Your task to perform on an android device: open the mobile data screen to see how much data has been used Image 0: 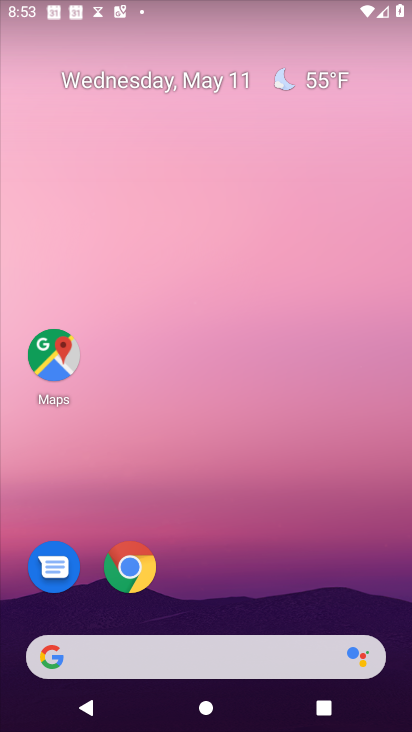
Step 0: drag from (227, 606) to (303, 10)
Your task to perform on an android device: open the mobile data screen to see how much data has been used Image 1: 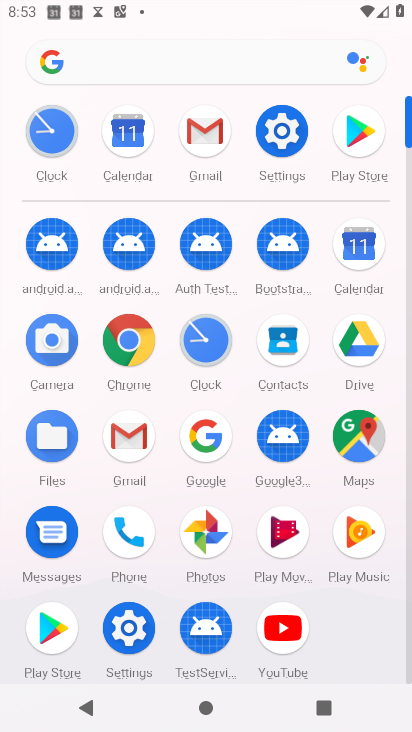
Step 1: click (302, 137)
Your task to perform on an android device: open the mobile data screen to see how much data has been used Image 2: 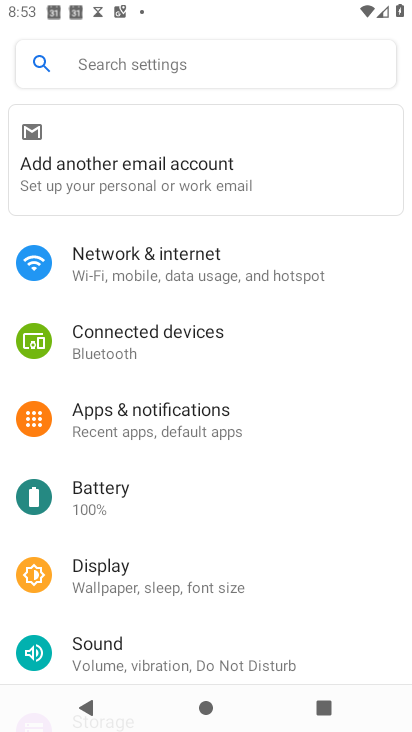
Step 2: click (222, 280)
Your task to perform on an android device: open the mobile data screen to see how much data has been used Image 3: 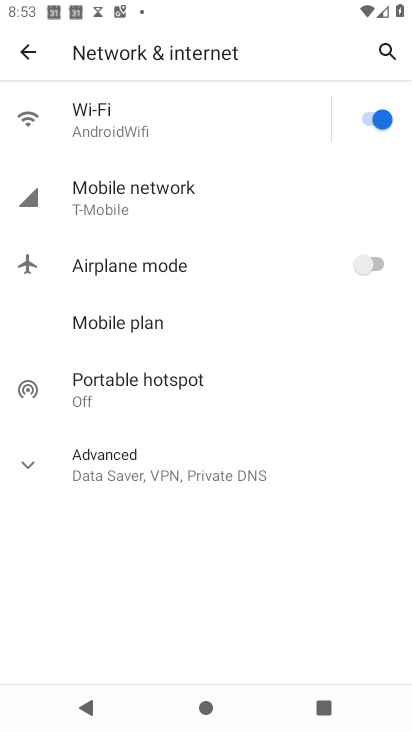
Step 3: click (173, 206)
Your task to perform on an android device: open the mobile data screen to see how much data has been used Image 4: 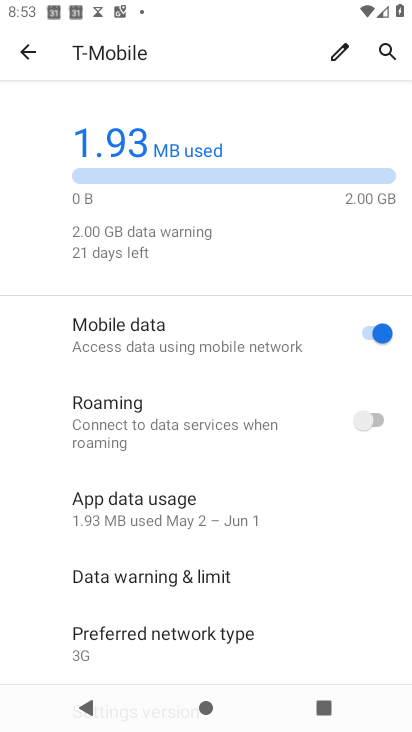
Step 4: click (185, 507)
Your task to perform on an android device: open the mobile data screen to see how much data has been used Image 5: 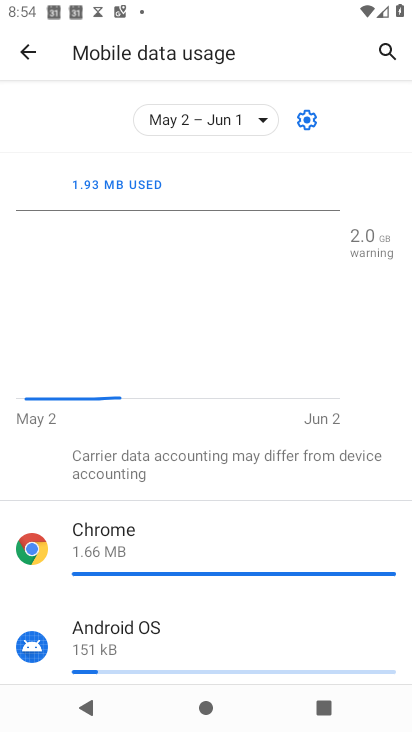
Step 5: task complete